Your task to perform on an android device: Open sound settings Image 0: 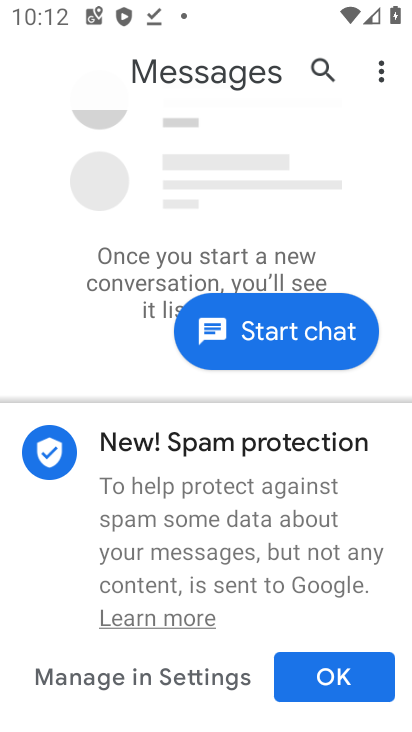
Step 0: press back button
Your task to perform on an android device: Open sound settings Image 1: 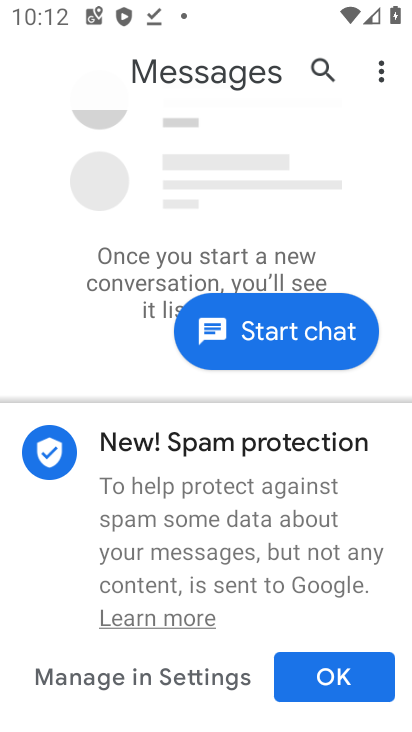
Step 1: press back button
Your task to perform on an android device: Open sound settings Image 2: 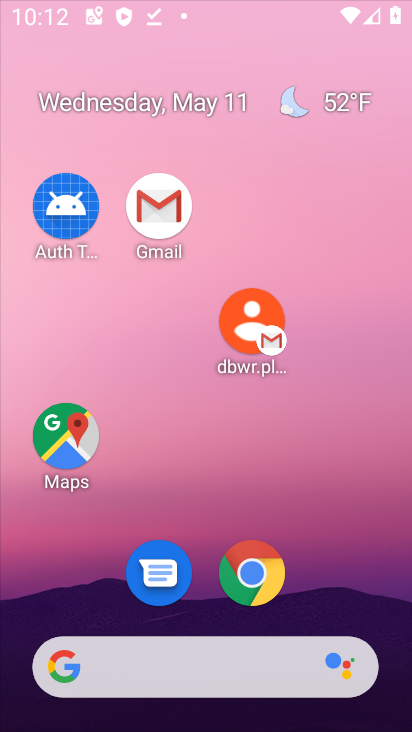
Step 2: press back button
Your task to perform on an android device: Open sound settings Image 3: 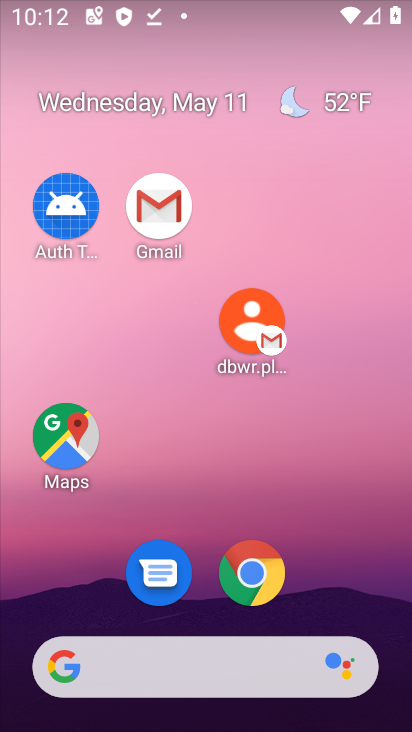
Step 3: drag from (326, 554) to (138, 116)
Your task to perform on an android device: Open sound settings Image 4: 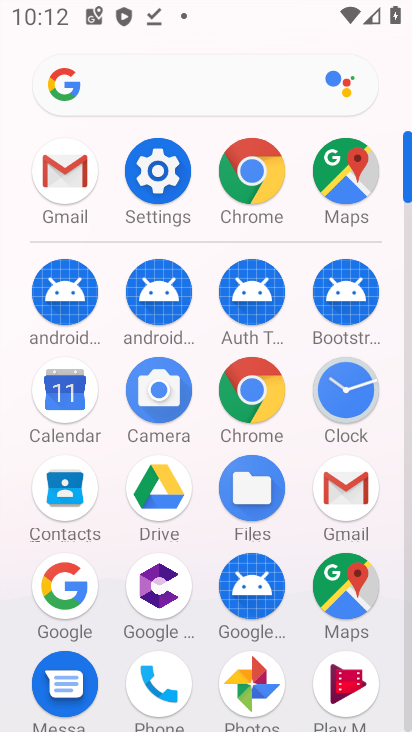
Step 4: click (149, 171)
Your task to perform on an android device: Open sound settings Image 5: 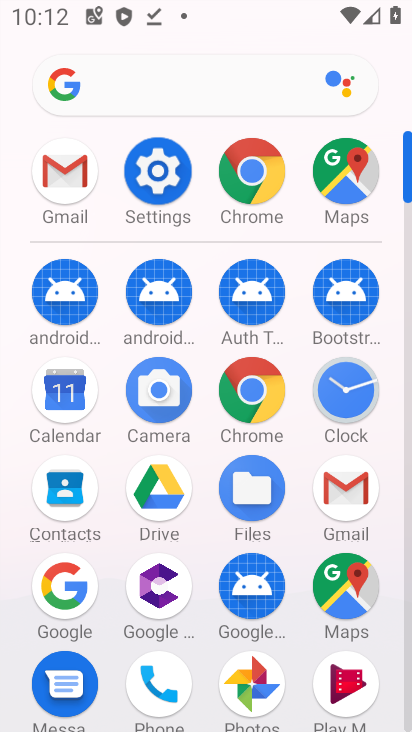
Step 5: click (149, 171)
Your task to perform on an android device: Open sound settings Image 6: 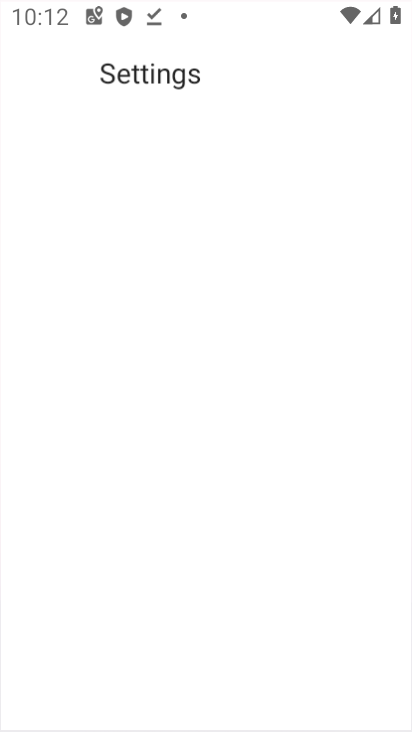
Step 6: click (150, 170)
Your task to perform on an android device: Open sound settings Image 7: 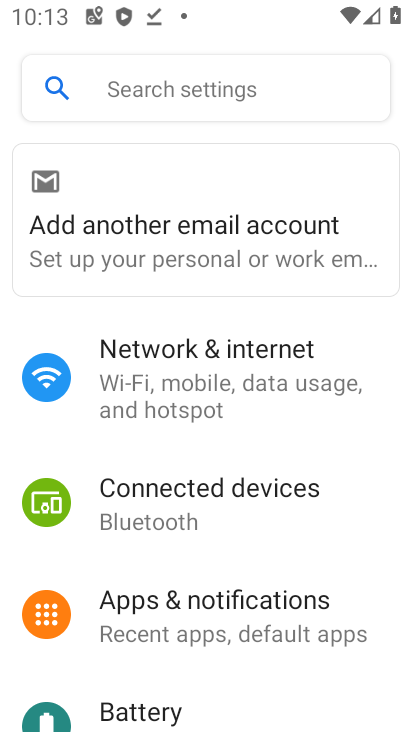
Step 7: drag from (137, 577) to (68, 253)
Your task to perform on an android device: Open sound settings Image 8: 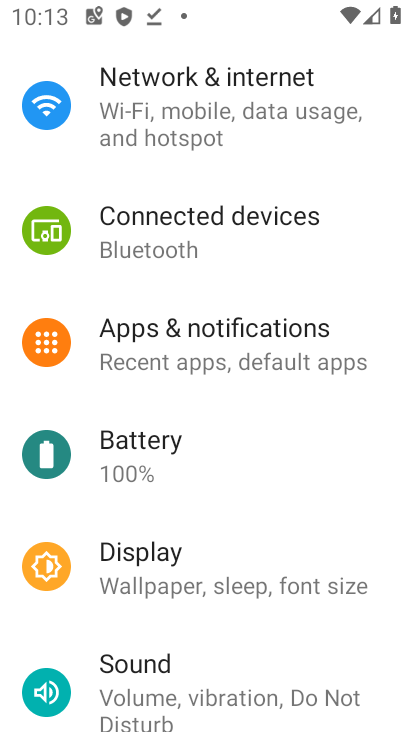
Step 8: drag from (205, 506) to (188, 60)
Your task to perform on an android device: Open sound settings Image 9: 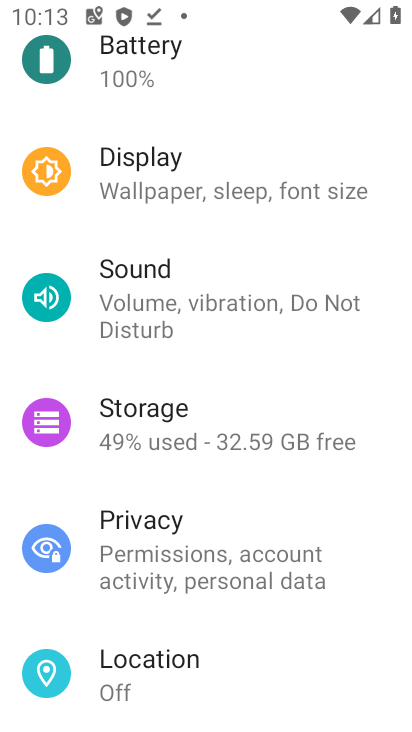
Step 9: drag from (223, 513) to (206, 59)
Your task to perform on an android device: Open sound settings Image 10: 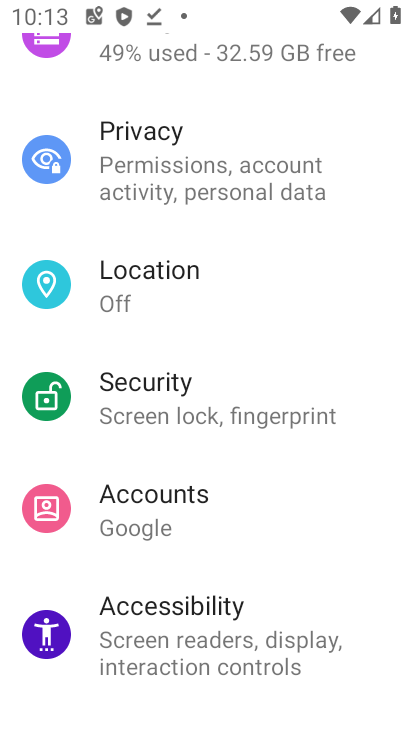
Step 10: drag from (221, 602) to (175, 84)
Your task to perform on an android device: Open sound settings Image 11: 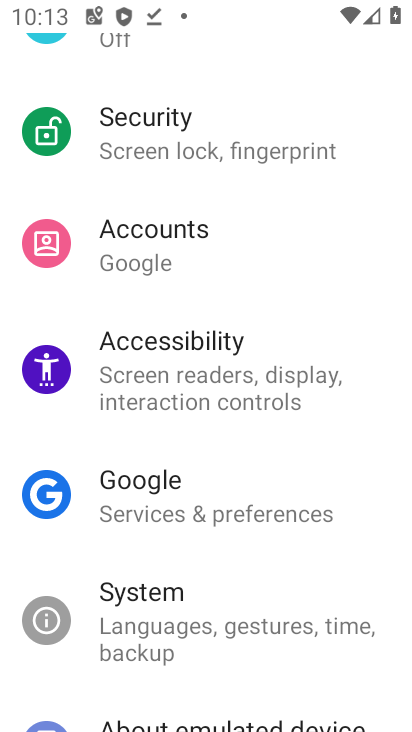
Step 11: click (185, 586)
Your task to perform on an android device: Open sound settings Image 12: 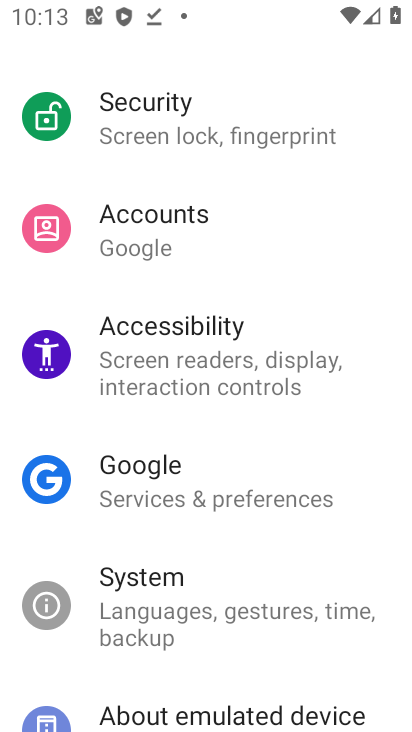
Step 12: drag from (171, 229) to (195, 536)
Your task to perform on an android device: Open sound settings Image 13: 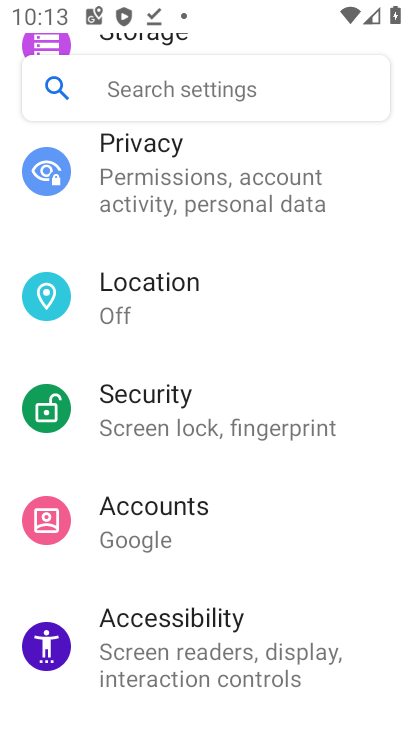
Step 13: drag from (165, 221) to (171, 626)
Your task to perform on an android device: Open sound settings Image 14: 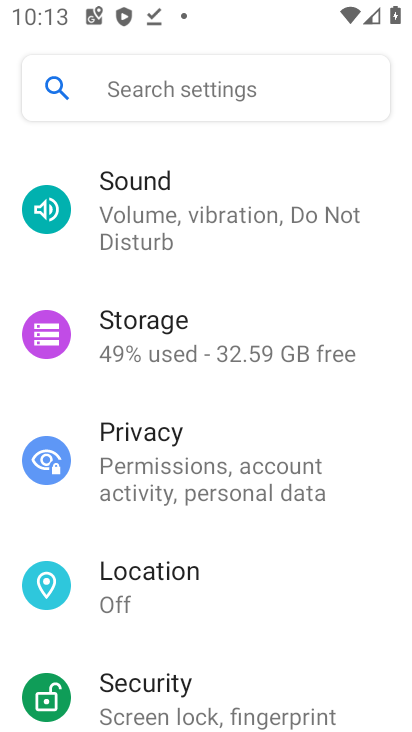
Step 14: drag from (145, 229) to (207, 660)
Your task to perform on an android device: Open sound settings Image 15: 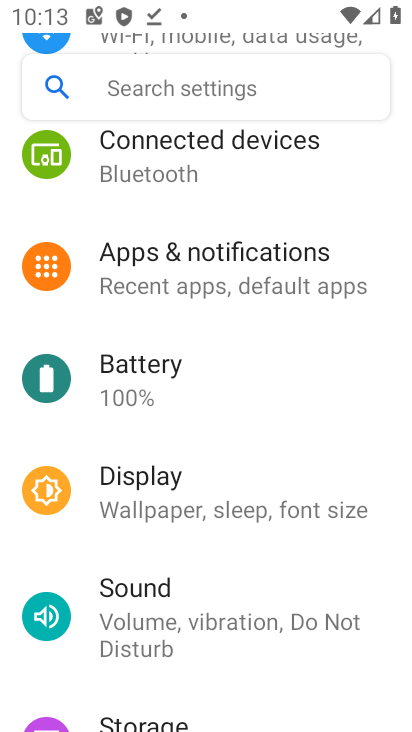
Step 15: drag from (113, 489) to (122, 632)
Your task to perform on an android device: Open sound settings Image 16: 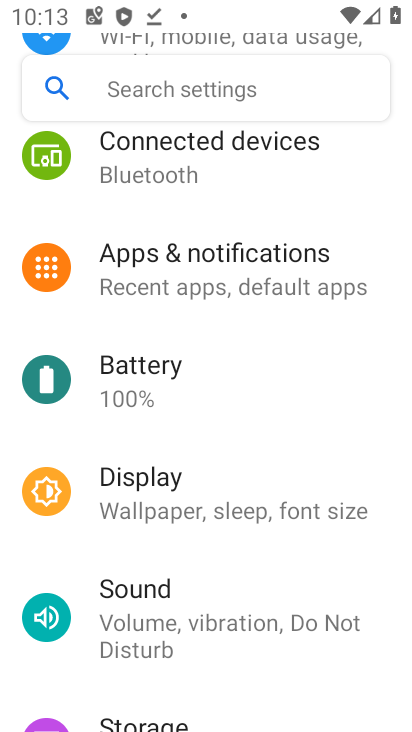
Step 16: click (140, 612)
Your task to perform on an android device: Open sound settings Image 17: 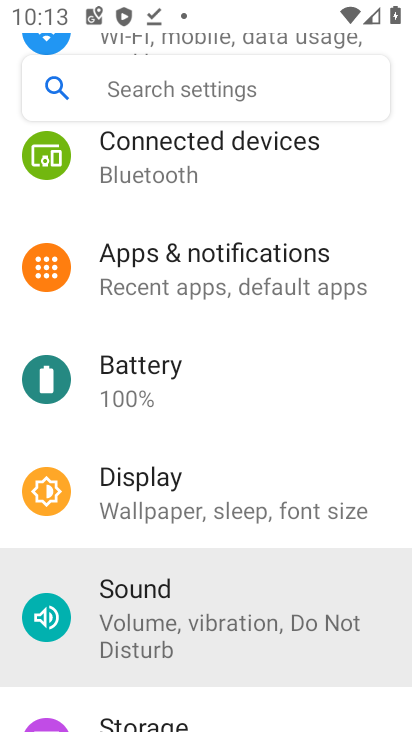
Step 17: click (138, 614)
Your task to perform on an android device: Open sound settings Image 18: 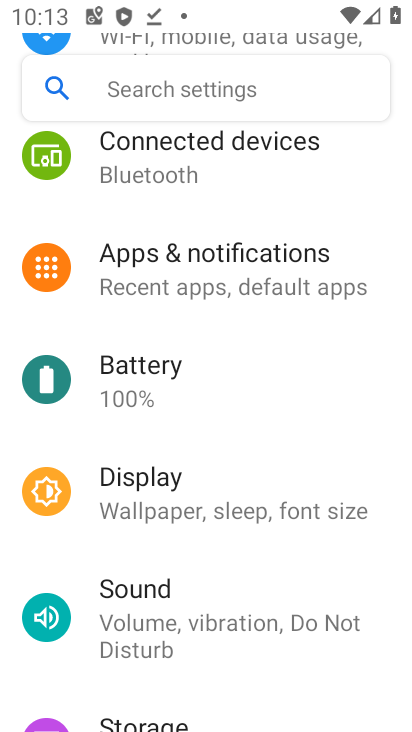
Step 18: click (139, 622)
Your task to perform on an android device: Open sound settings Image 19: 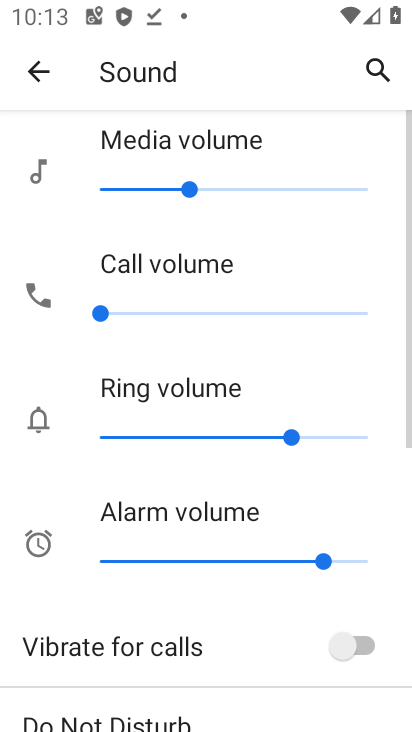
Step 19: drag from (185, 497) to (139, 42)
Your task to perform on an android device: Open sound settings Image 20: 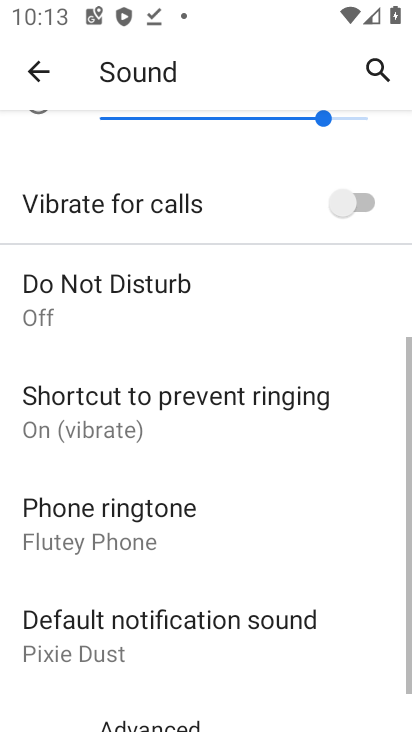
Step 20: drag from (220, 416) to (183, 49)
Your task to perform on an android device: Open sound settings Image 21: 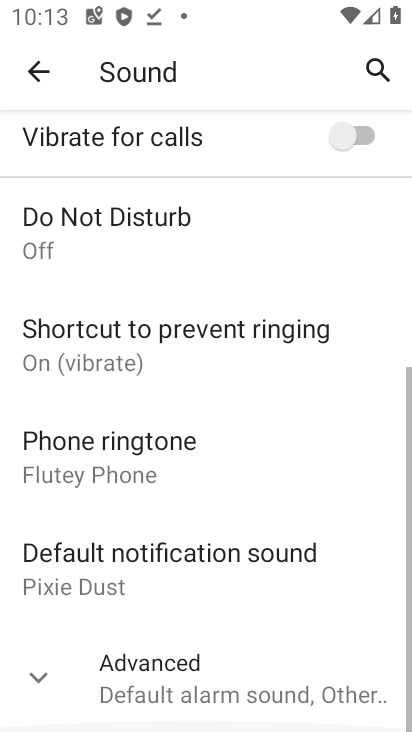
Step 21: drag from (239, 542) to (227, 146)
Your task to perform on an android device: Open sound settings Image 22: 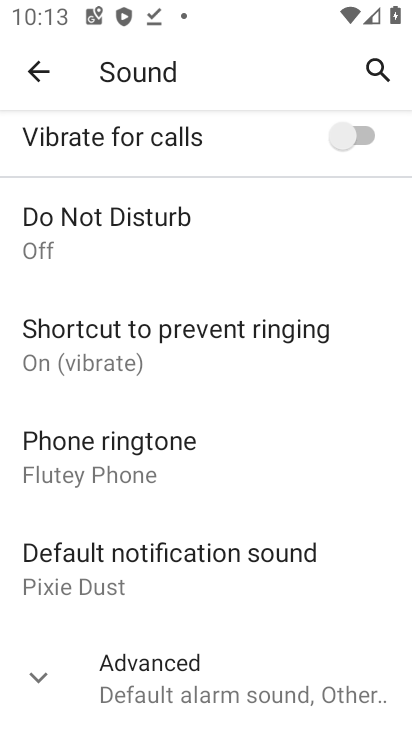
Step 22: press back button
Your task to perform on an android device: Open sound settings Image 23: 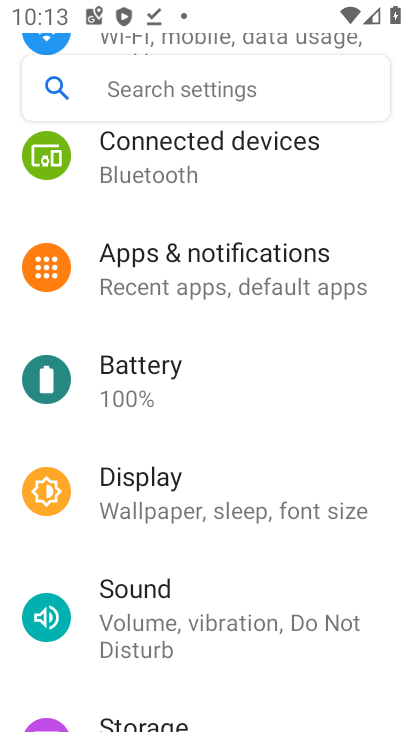
Step 23: drag from (198, 518) to (188, 127)
Your task to perform on an android device: Open sound settings Image 24: 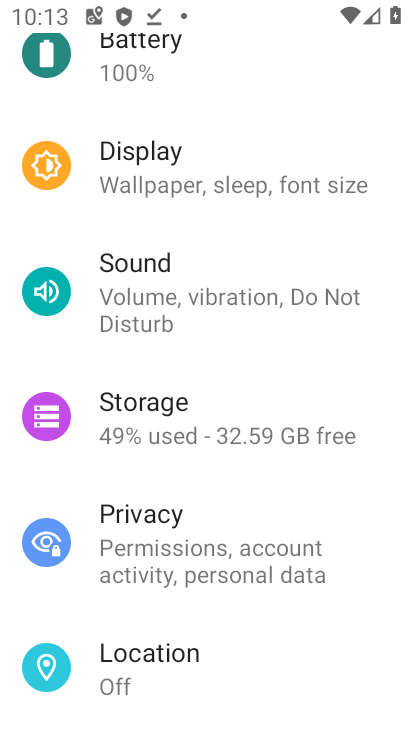
Step 24: drag from (286, 539) to (215, 116)
Your task to perform on an android device: Open sound settings Image 25: 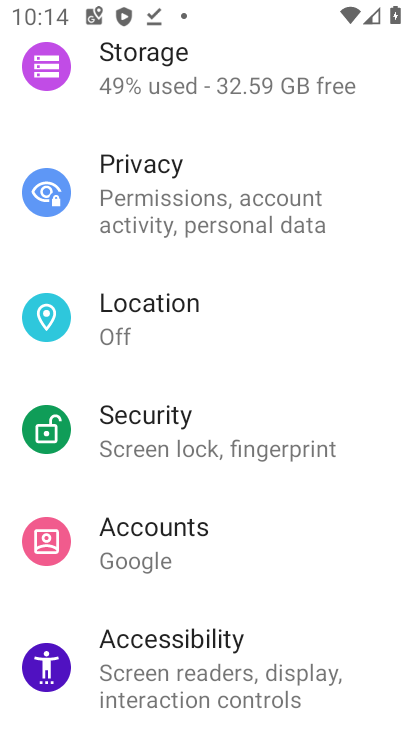
Step 25: drag from (166, 499) to (148, 194)
Your task to perform on an android device: Open sound settings Image 26: 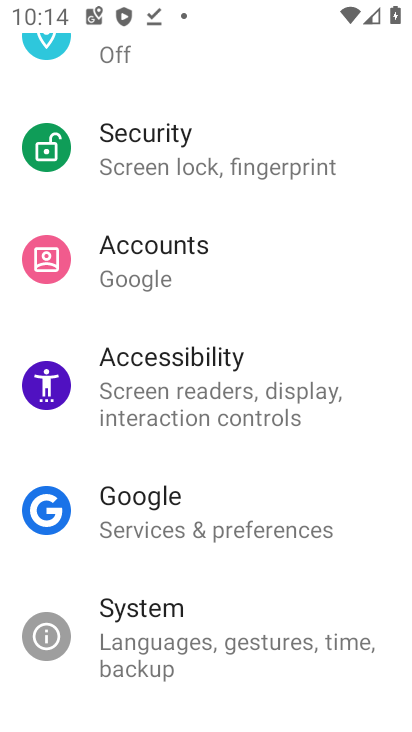
Step 26: drag from (241, 540) to (168, 119)
Your task to perform on an android device: Open sound settings Image 27: 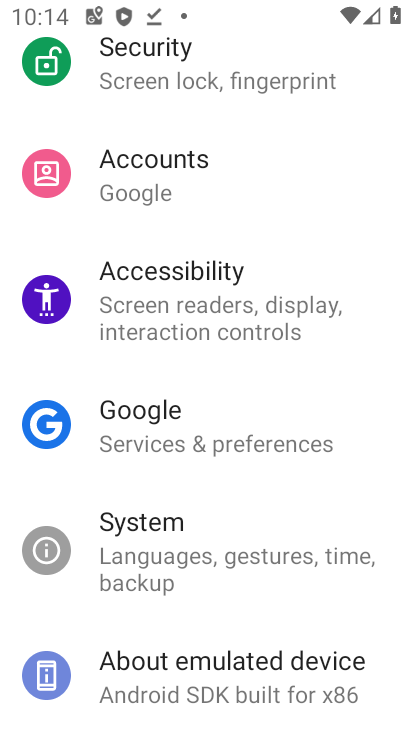
Step 27: drag from (201, 220) to (213, 653)
Your task to perform on an android device: Open sound settings Image 28: 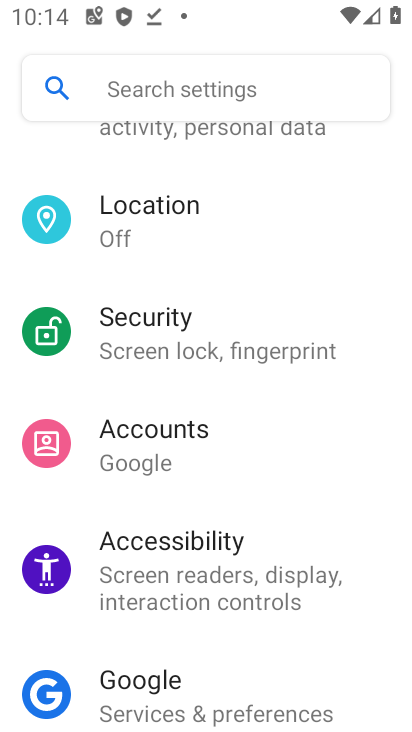
Step 28: drag from (190, 281) to (223, 621)
Your task to perform on an android device: Open sound settings Image 29: 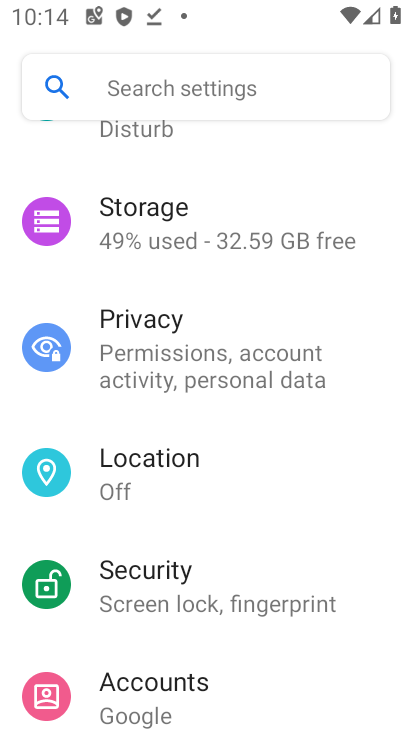
Step 29: drag from (185, 275) to (203, 660)
Your task to perform on an android device: Open sound settings Image 30: 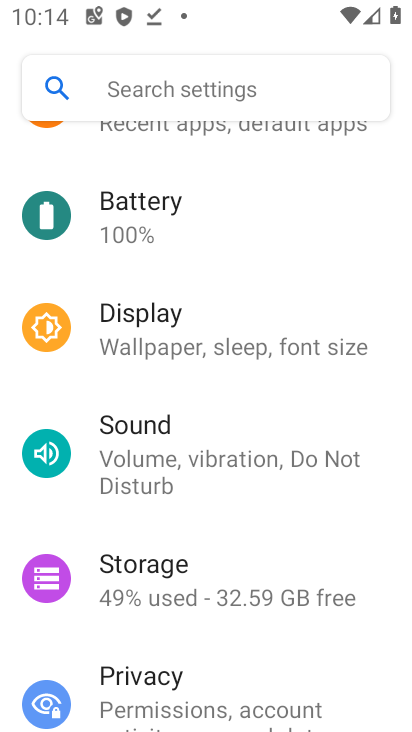
Step 30: drag from (219, 600) to (245, 717)
Your task to perform on an android device: Open sound settings Image 31: 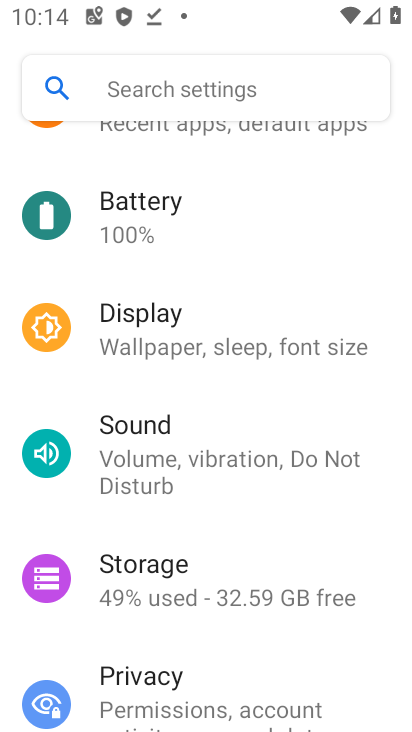
Step 31: drag from (218, 282) to (228, 658)
Your task to perform on an android device: Open sound settings Image 32: 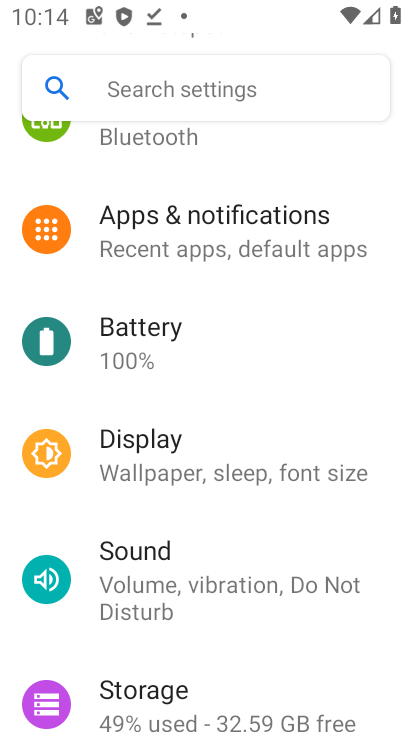
Step 32: drag from (180, 290) to (268, 697)
Your task to perform on an android device: Open sound settings Image 33: 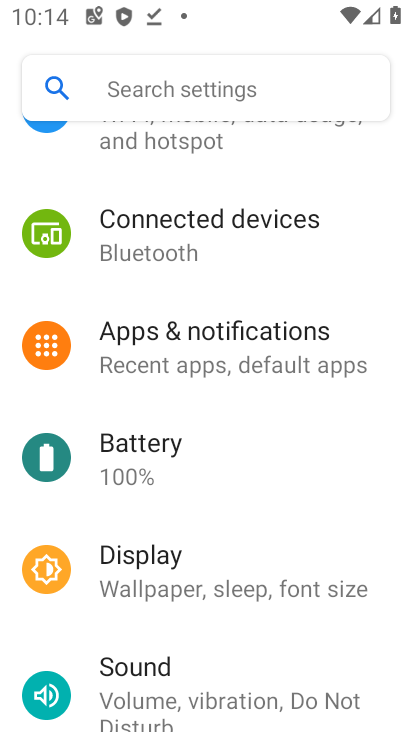
Step 33: drag from (172, 636) to (139, 190)
Your task to perform on an android device: Open sound settings Image 34: 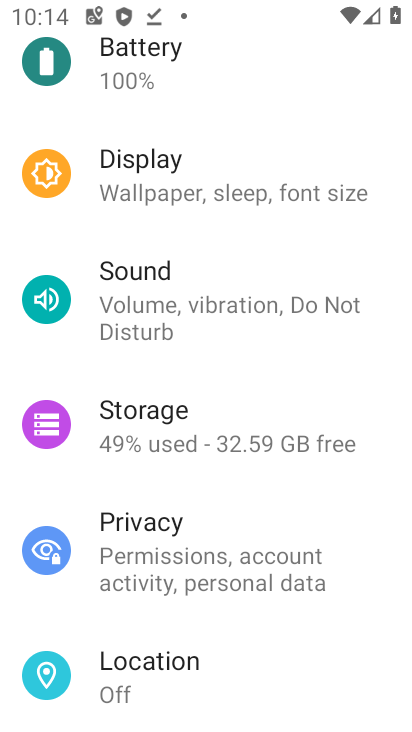
Step 34: click (158, 301)
Your task to perform on an android device: Open sound settings Image 35: 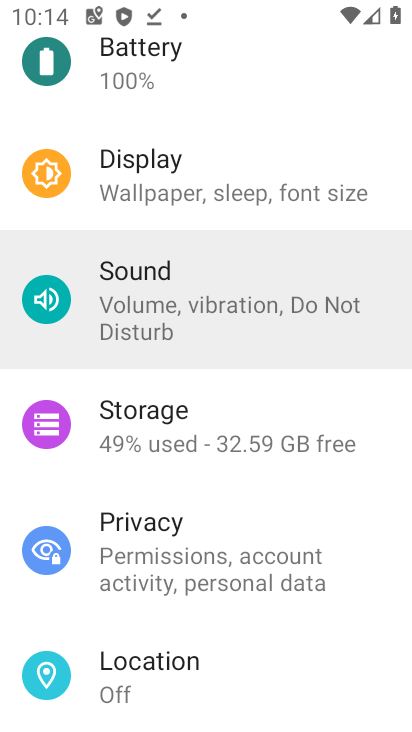
Step 35: click (158, 301)
Your task to perform on an android device: Open sound settings Image 36: 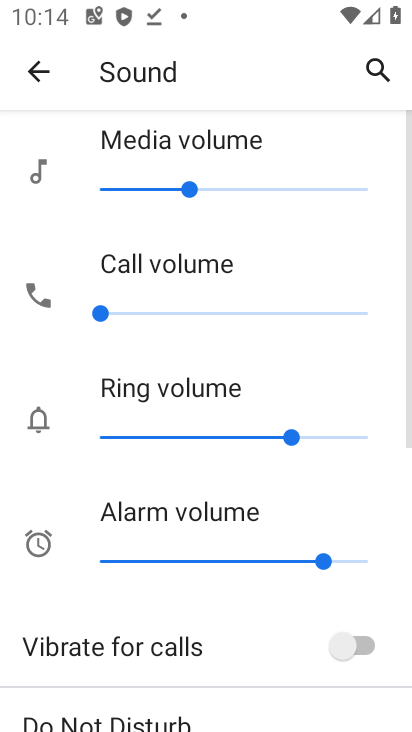
Step 36: task complete